Your task to perform on an android device: Open network settings Image 0: 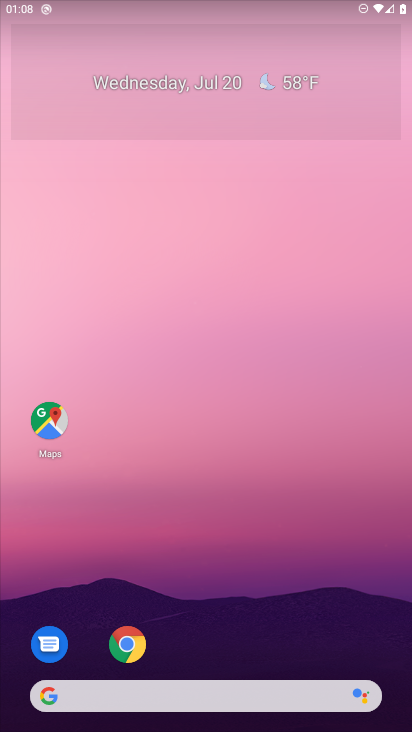
Step 0: drag from (15, 684) to (269, 66)
Your task to perform on an android device: Open network settings Image 1: 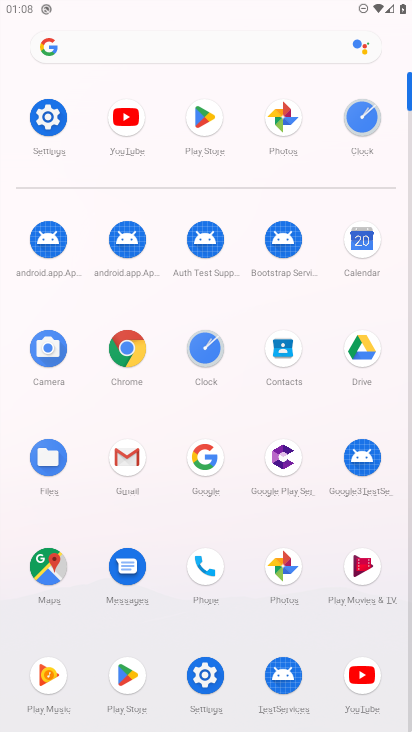
Step 1: click (212, 699)
Your task to perform on an android device: Open network settings Image 2: 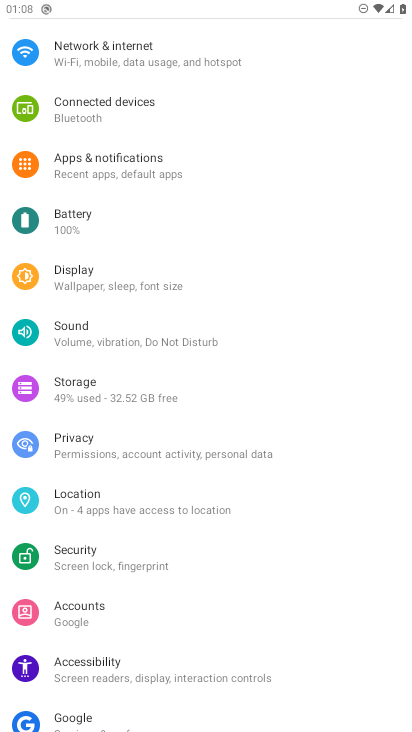
Step 2: click (163, 54)
Your task to perform on an android device: Open network settings Image 3: 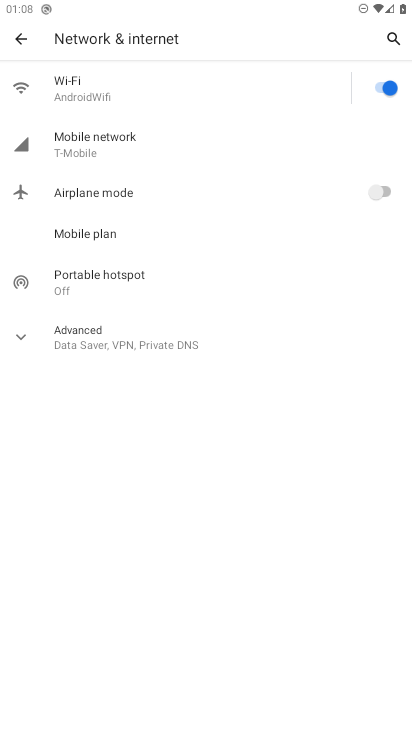
Step 3: task complete